Your task to perform on an android device: find photos in the google photos app Image 0: 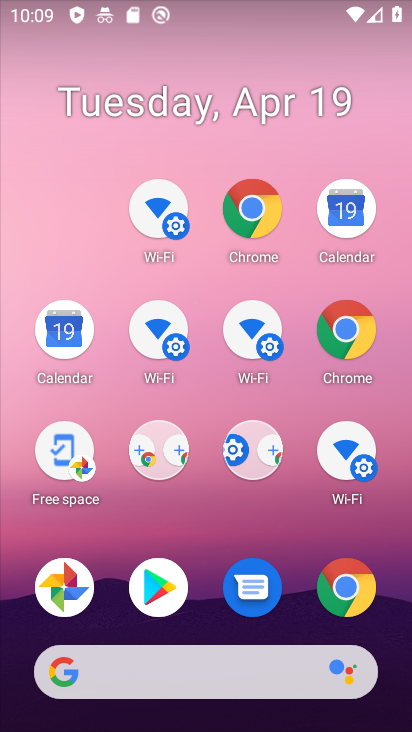
Step 0: click (68, 593)
Your task to perform on an android device: find photos in the google photos app Image 1: 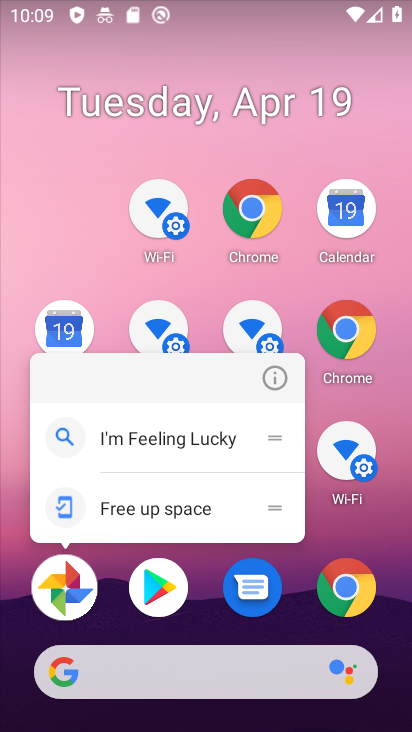
Step 1: click (68, 593)
Your task to perform on an android device: find photos in the google photos app Image 2: 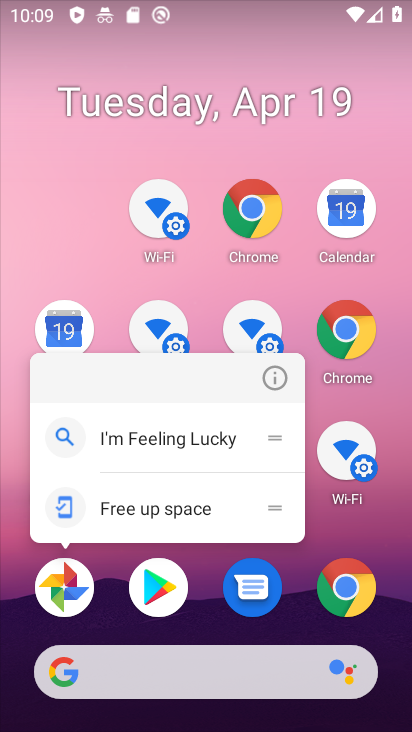
Step 2: drag from (398, 370) to (53, 591)
Your task to perform on an android device: find photos in the google photos app Image 3: 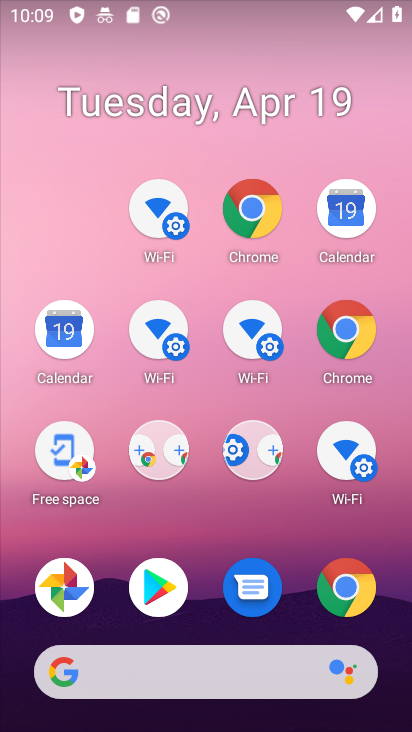
Step 3: click (398, 370)
Your task to perform on an android device: find photos in the google photos app Image 4: 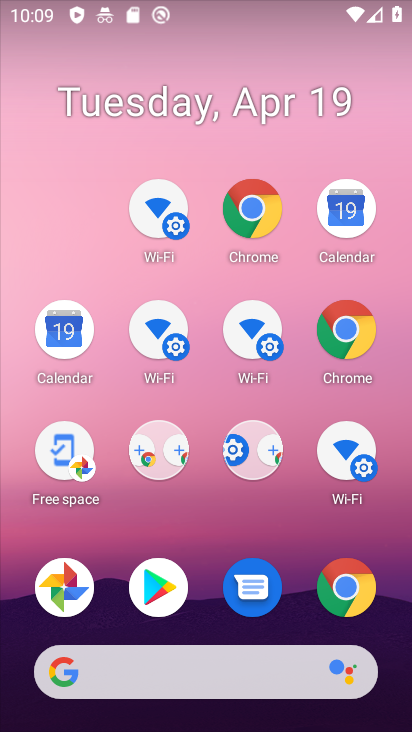
Step 4: click (54, 588)
Your task to perform on an android device: find photos in the google photos app Image 5: 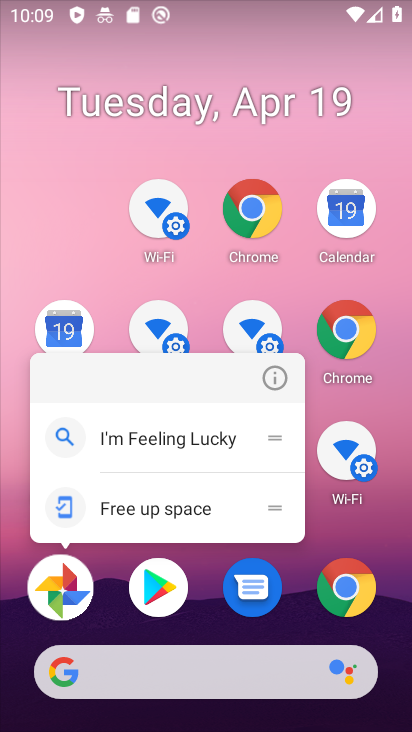
Step 5: click (57, 589)
Your task to perform on an android device: find photos in the google photos app Image 6: 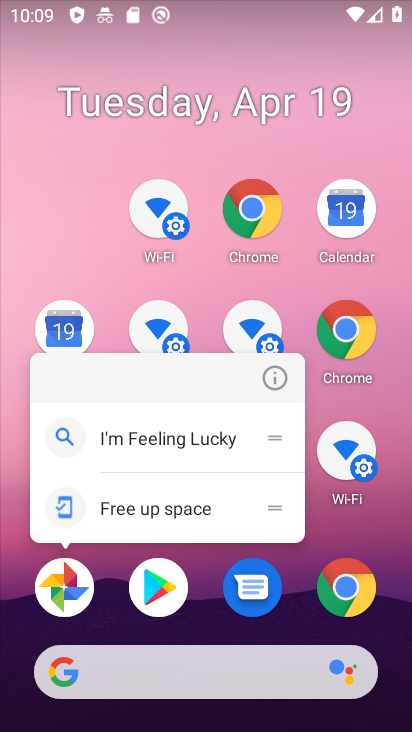
Step 6: click (59, 587)
Your task to perform on an android device: find photos in the google photos app Image 7: 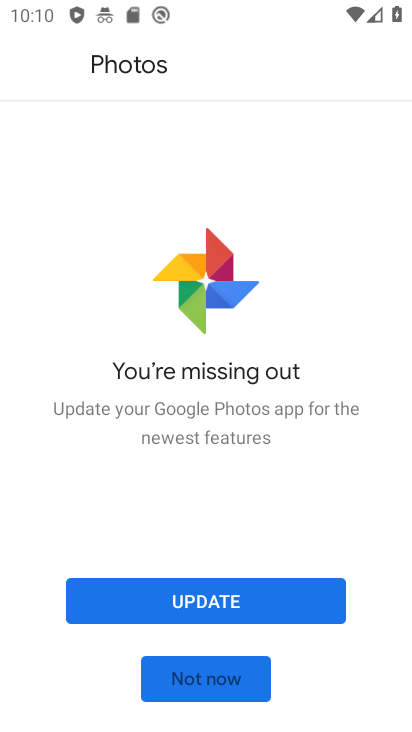
Step 7: click (200, 687)
Your task to perform on an android device: find photos in the google photos app Image 8: 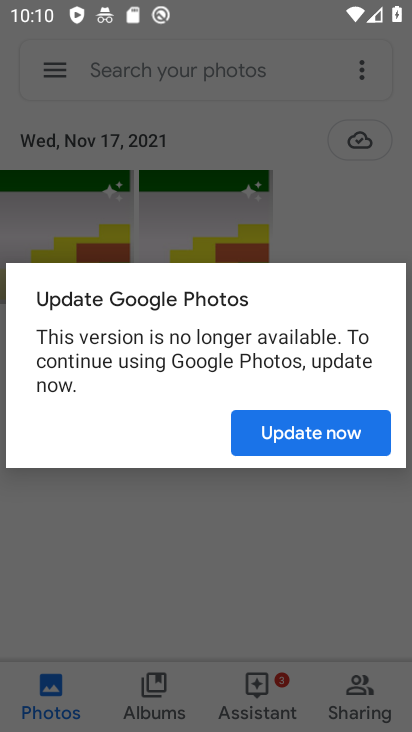
Step 8: click (58, 684)
Your task to perform on an android device: find photos in the google photos app Image 9: 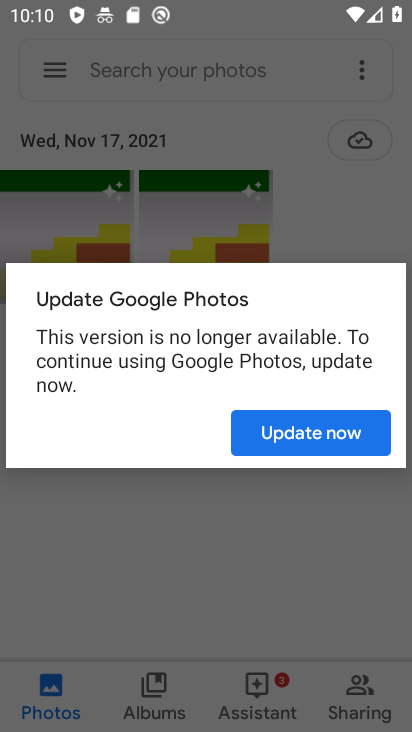
Step 9: click (314, 432)
Your task to perform on an android device: find photos in the google photos app Image 10: 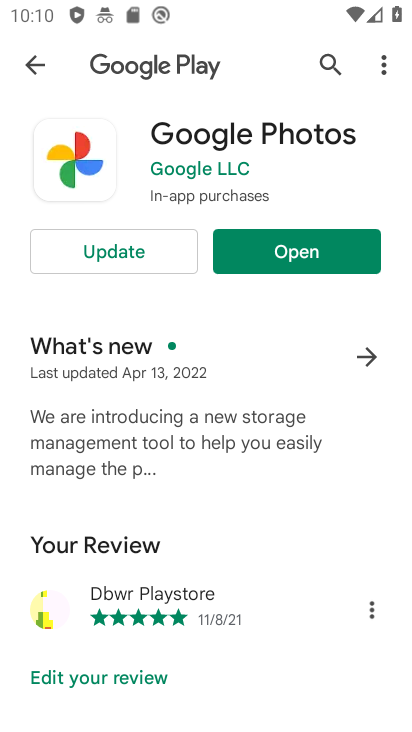
Step 10: click (120, 246)
Your task to perform on an android device: find photos in the google photos app Image 11: 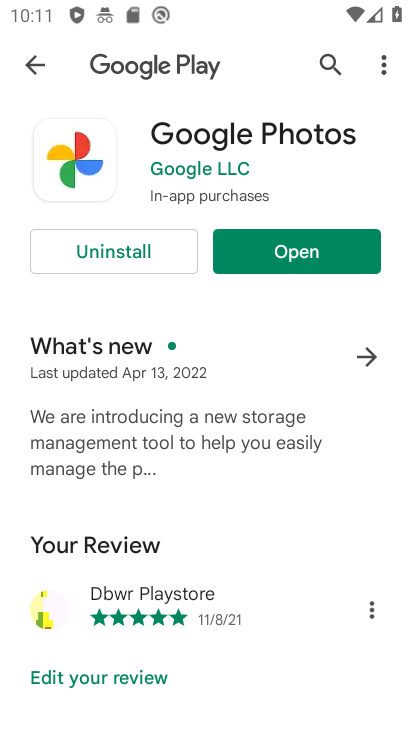
Step 11: click (286, 254)
Your task to perform on an android device: find photos in the google photos app Image 12: 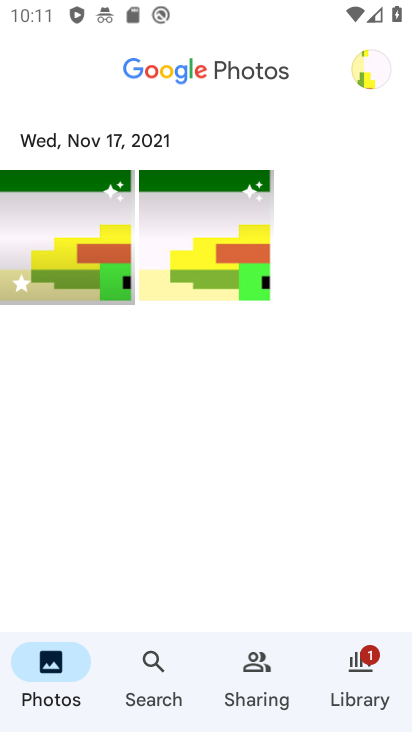
Step 12: task complete